Your task to perform on an android device: Open the calendar app, open the side menu, and click the "Day" option Image 0: 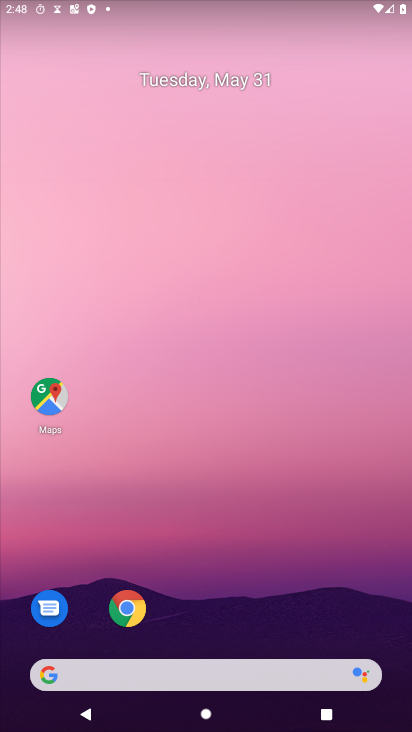
Step 0: drag from (194, 599) to (210, 290)
Your task to perform on an android device: Open the calendar app, open the side menu, and click the "Day" option Image 1: 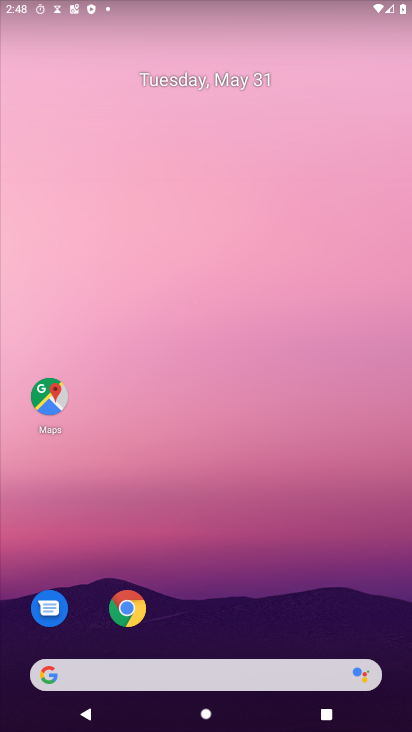
Step 1: drag from (193, 645) to (183, 2)
Your task to perform on an android device: Open the calendar app, open the side menu, and click the "Day" option Image 2: 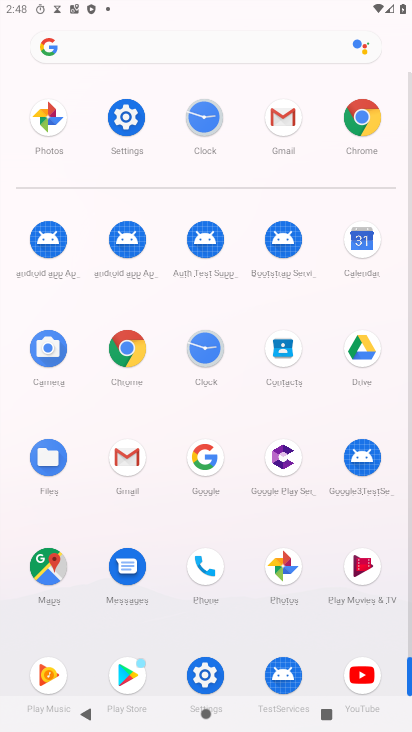
Step 2: click (363, 255)
Your task to perform on an android device: Open the calendar app, open the side menu, and click the "Day" option Image 3: 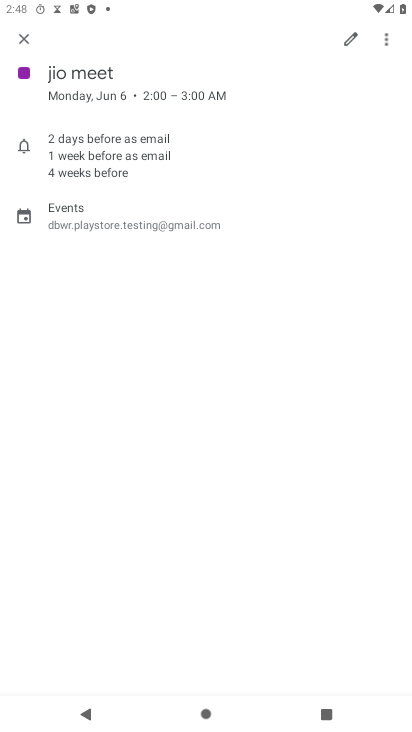
Step 3: click (20, 42)
Your task to perform on an android device: Open the calendar app, open the side menu, and click the "Day" option Image 4: 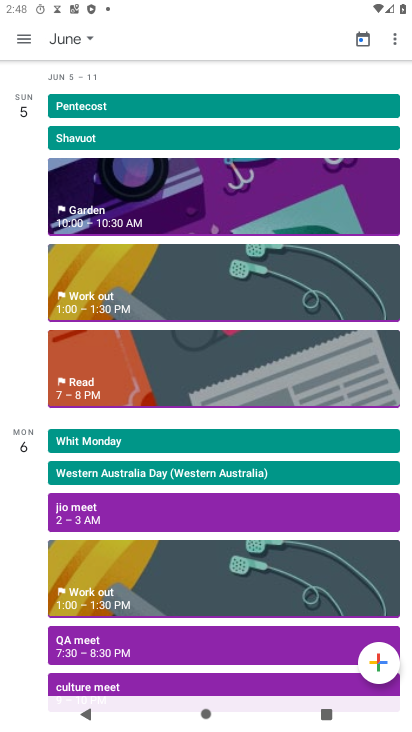
Step 4: click (24, 42)
Your task to perform on an android device: Open the calendar app, open the side menu, and click the "Day" option Image 5: 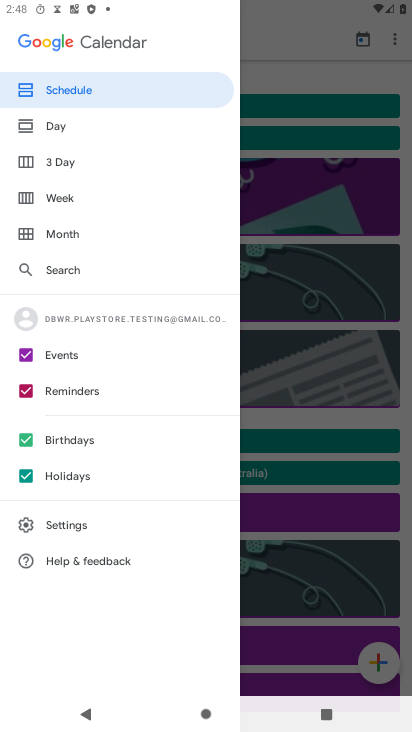
Step 5: click (59, 117)
Your task to perform on an android device: Open the calendar app, open the side menu, and click the "Day" option Image 6: 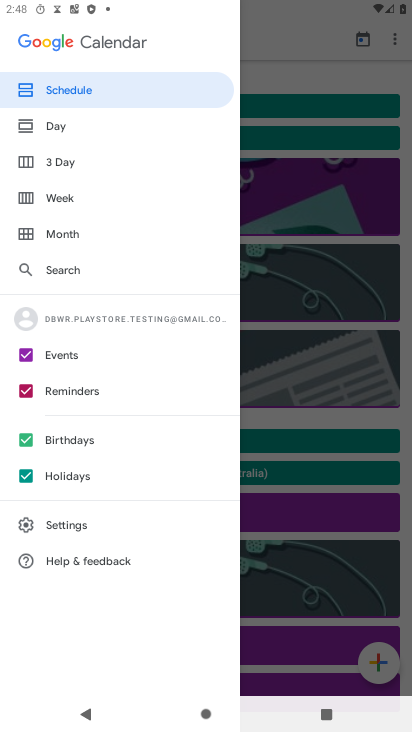
Step 6: click (53, 135)
Your task to perform on an android device: Open the calendar app, open the side menu, and click the "Day" option Image 7: 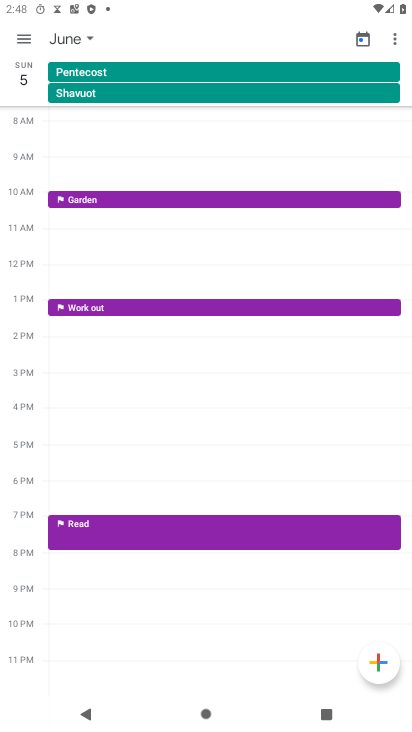
Step 7: task complete